Your task to perform on an android device: read, delete, or share a saved page in the chrome app Image 0: 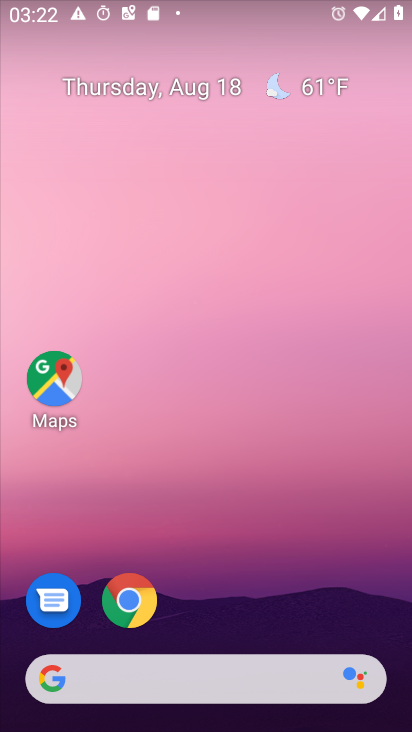
Step 0: press home button
Your task to perform on an android device: read, delete, or share a saved page in the chrome app Image 1: 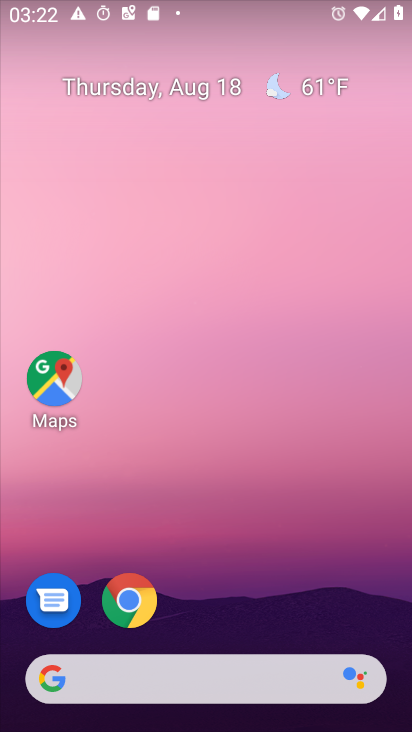
Step 1: click (133, 598)
Your task to perform on an android device: read, delete, or share a saved page in the chrome app Image 2: 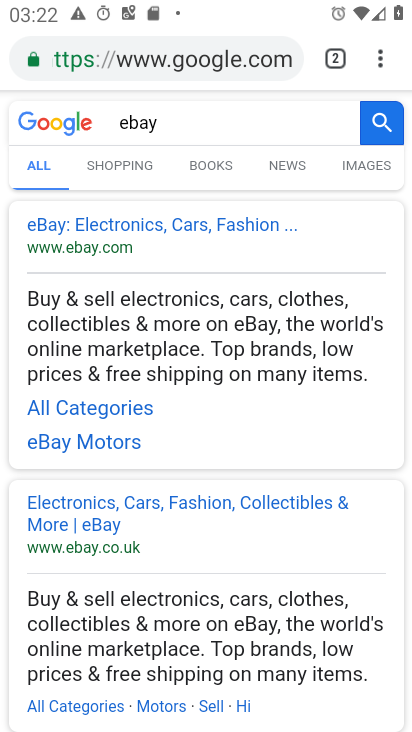
Step 2: drag from (378, 54) to (208, 389)
Your task to perform on an android device: read, delete, or share a saved page in the chrome app Image 3: 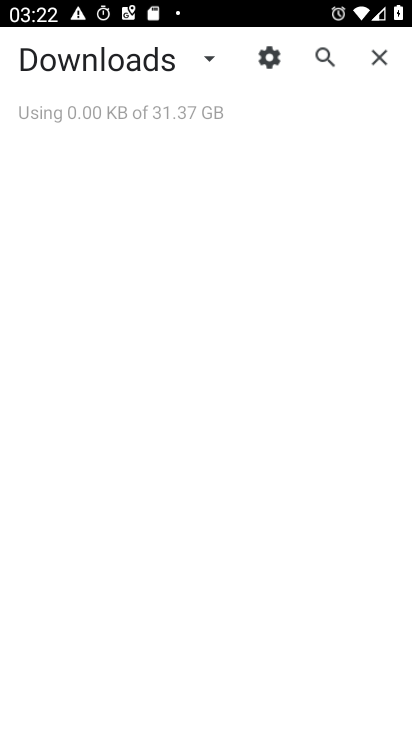
Step 3: click (203, 59)
Your task to perform on an android device: read, delete, or share a saved page in the chrome app Image 4: 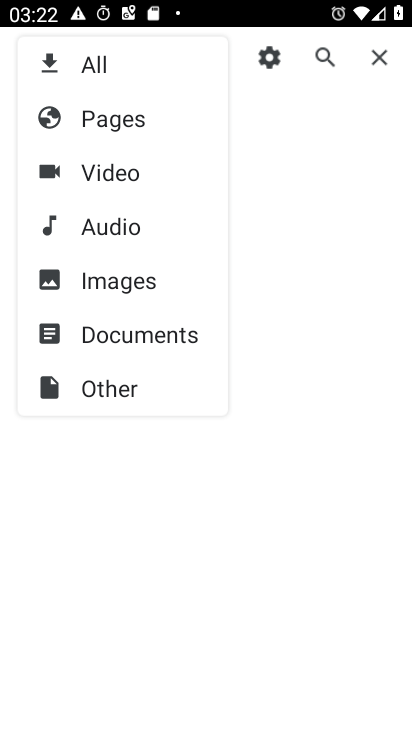
Step 4: click (128, 122)
Your task to perform on an android device: read, delete, or share a saved page in the chrome app Image 5: 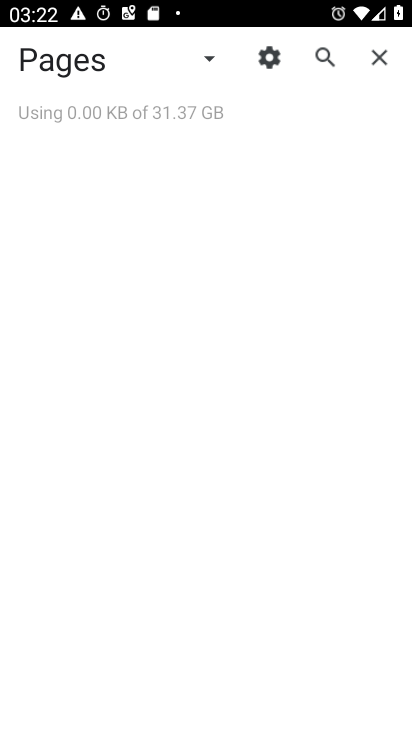
Step 5: task complete